Your task to perform on an android device: open app "Cash App" (install if not already installed) and go to login screen Image 0: 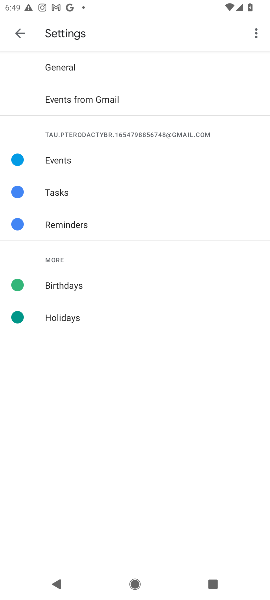
Step 0: click (20, 35)
Your task to perform on an android device: open app "Cash App" (install if not already installed) and go to login screen Image 1: 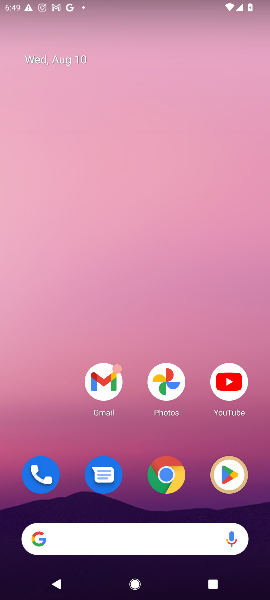
Step 1: drag from (128, 525) to (114, 222)
Your task to perform on an android device: open app "Cash App" (install if not already installed) and go to login screen Image 2: 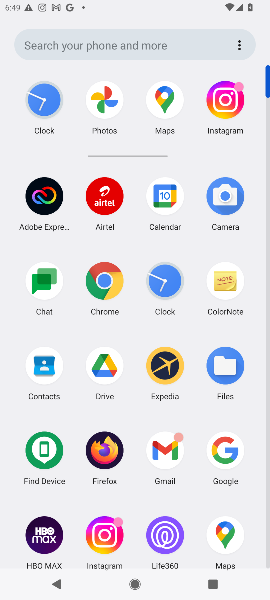
Step 2: drag from (192, 550) to (179, 272)
Your task to perform on an android device: open app "Cash App" (install if not already installed) and go to login screen Image 3: 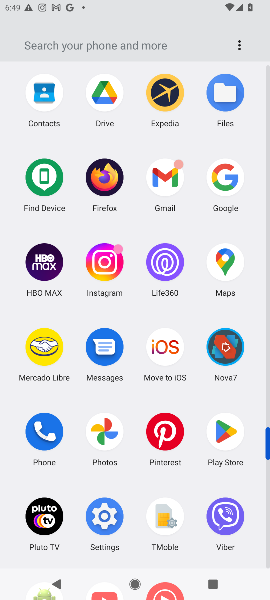
Step 3: click (229, 425)
Your task to perform on an android device: open app "Cash App" (install if not already installed) and go to login screen Image 4: 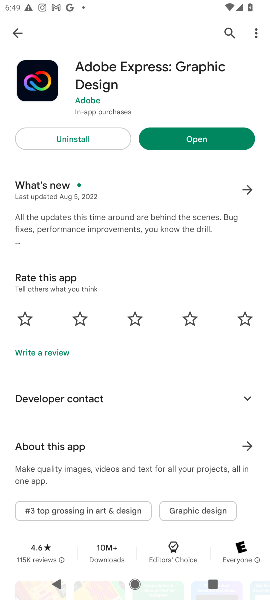
Step 4: click (21, 35)
Your task to perform on an android device: open app "Cash App" (install if not already installed) and go to login screen Image 5: 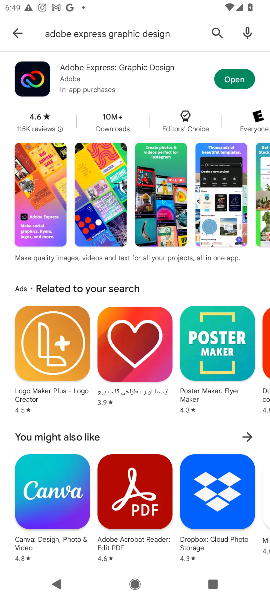
Step 5: press back button
Your task to perform on an android device: open app "Cash App" (install if not already installed) and go to login screen Image 6: 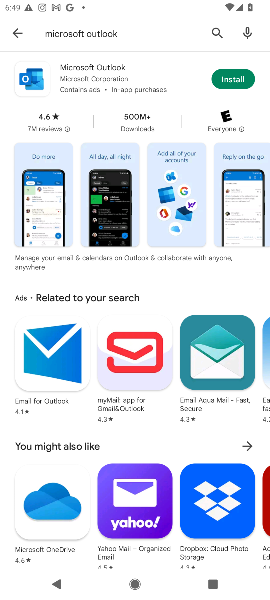
Step 6: click (215, 30)
Your task to perform on an android device: open app "Cash App" (install if not already installed) and go to login screen Image 7: 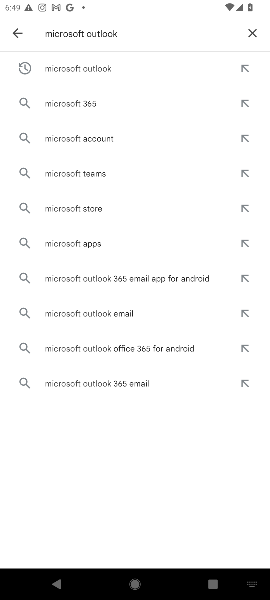
Step 7: click (250, 27)
Your task to perform on an android device: open app "Cash App" (install if not already installed) and go to login screen Image 8: 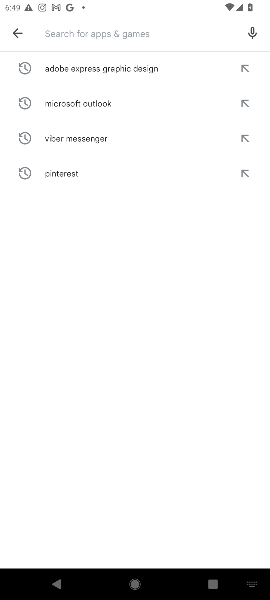
Step 8: type "Cash App"
Your task to perform on an android device: open app "Cash App" (install if not already installed) and go to login screen Image 9: 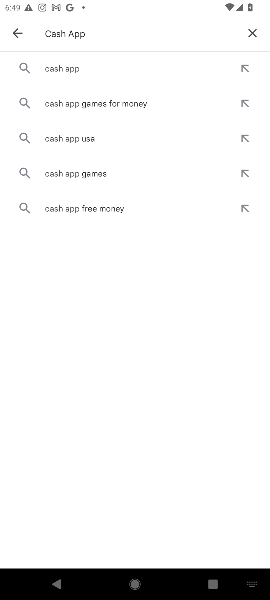
Step 9: click (102, 68)
Your task to perform on an android device: open app "Cash App" (install if not already installed) and go to login screen Image 10: 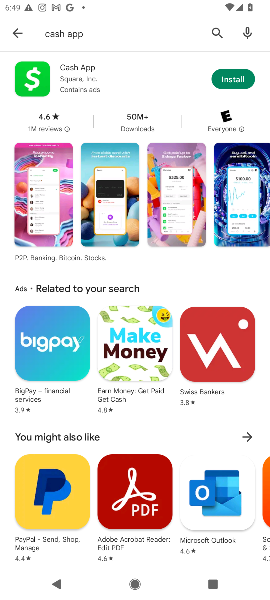
Step 10: click (245, 78)
Your task to perform on an android device: open app "Cash App" (install if not already installed) and go to login screen Image 11: 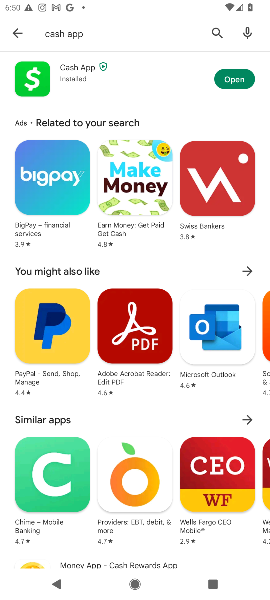
Step 11: click (226, 79)
Your task to perform on an android device: open app "Cash App" (install if not already installed) and go to login screen Image 12: 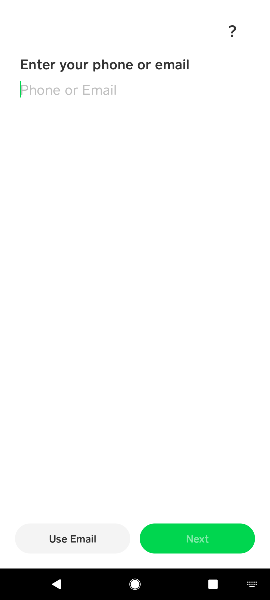
Step 12: task complete